Your task to perform on an android device: turn off location history Image 0: 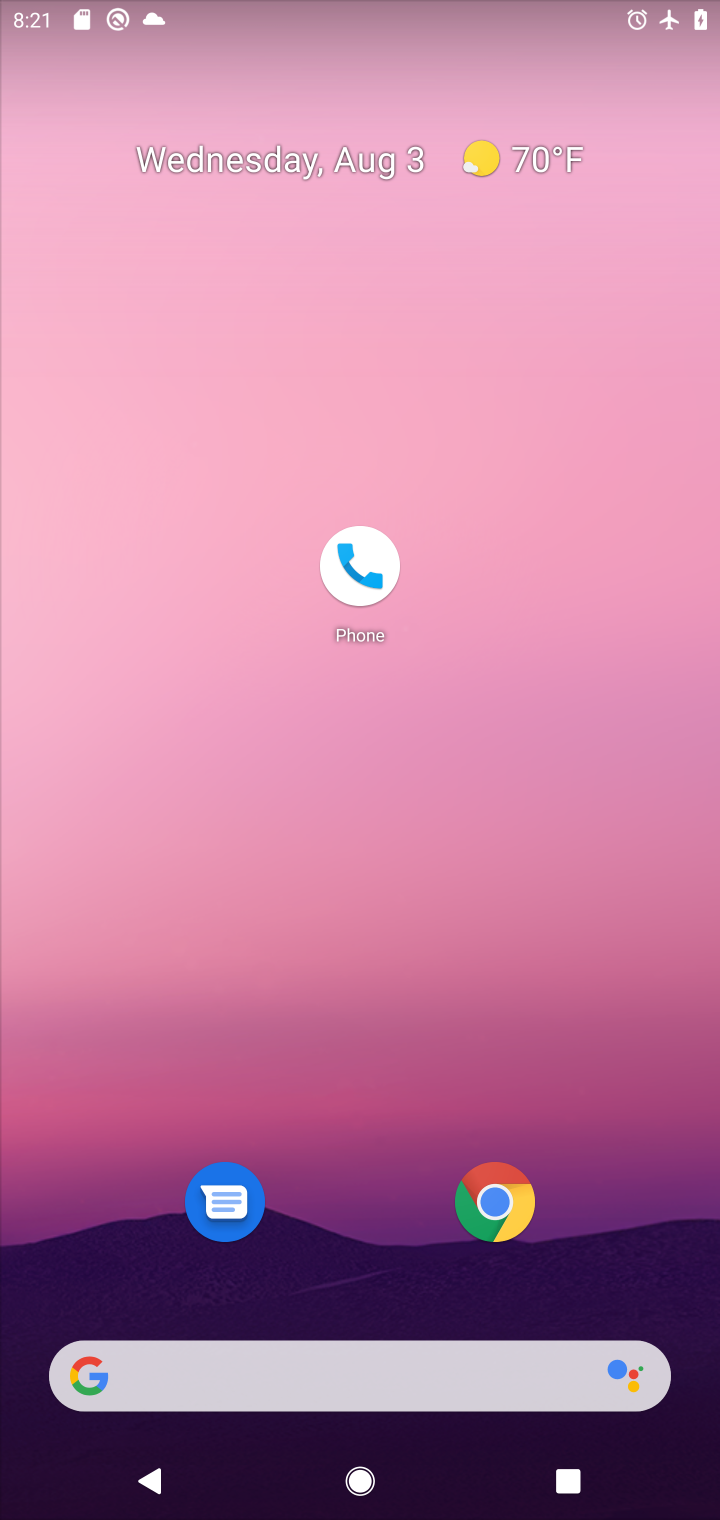
Step 0: drag from (329, 1308) to (476, 234)
Your task to perform on an android device: turn off location history Image 1: 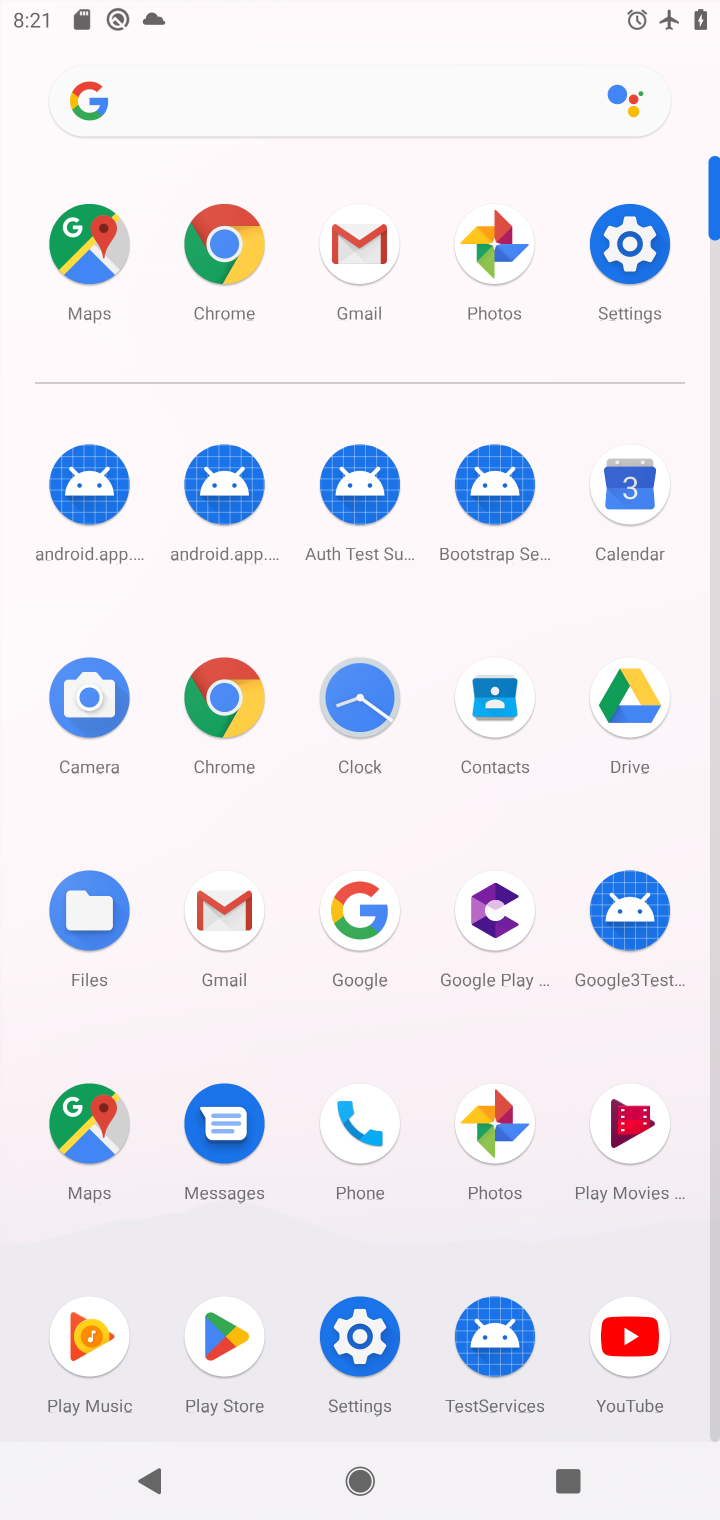
Step 1: click (628, 245)
Your task to perform on an android device: turn off location history Image 2: 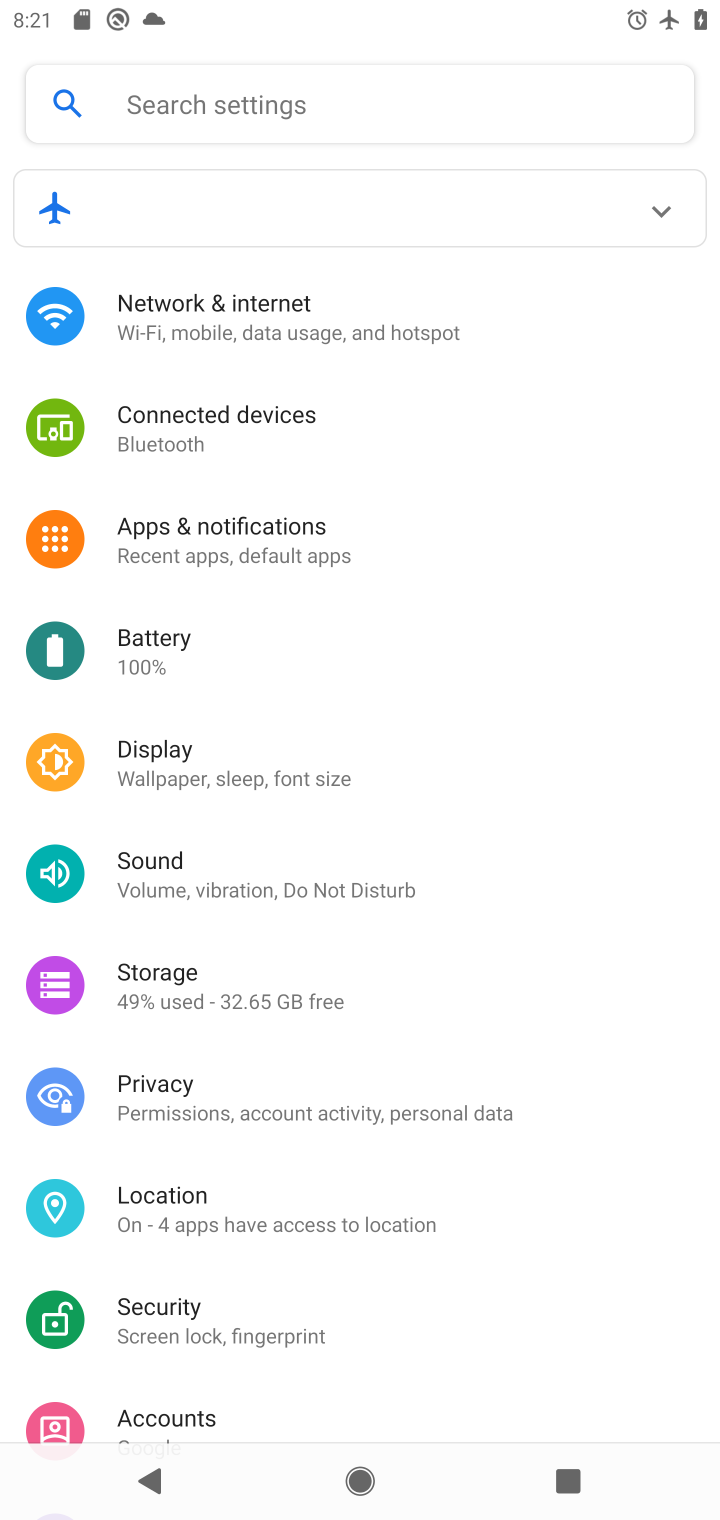
Step 2: click (218, 1219)
Your task to perform on an android device: turn off location history Image 3: 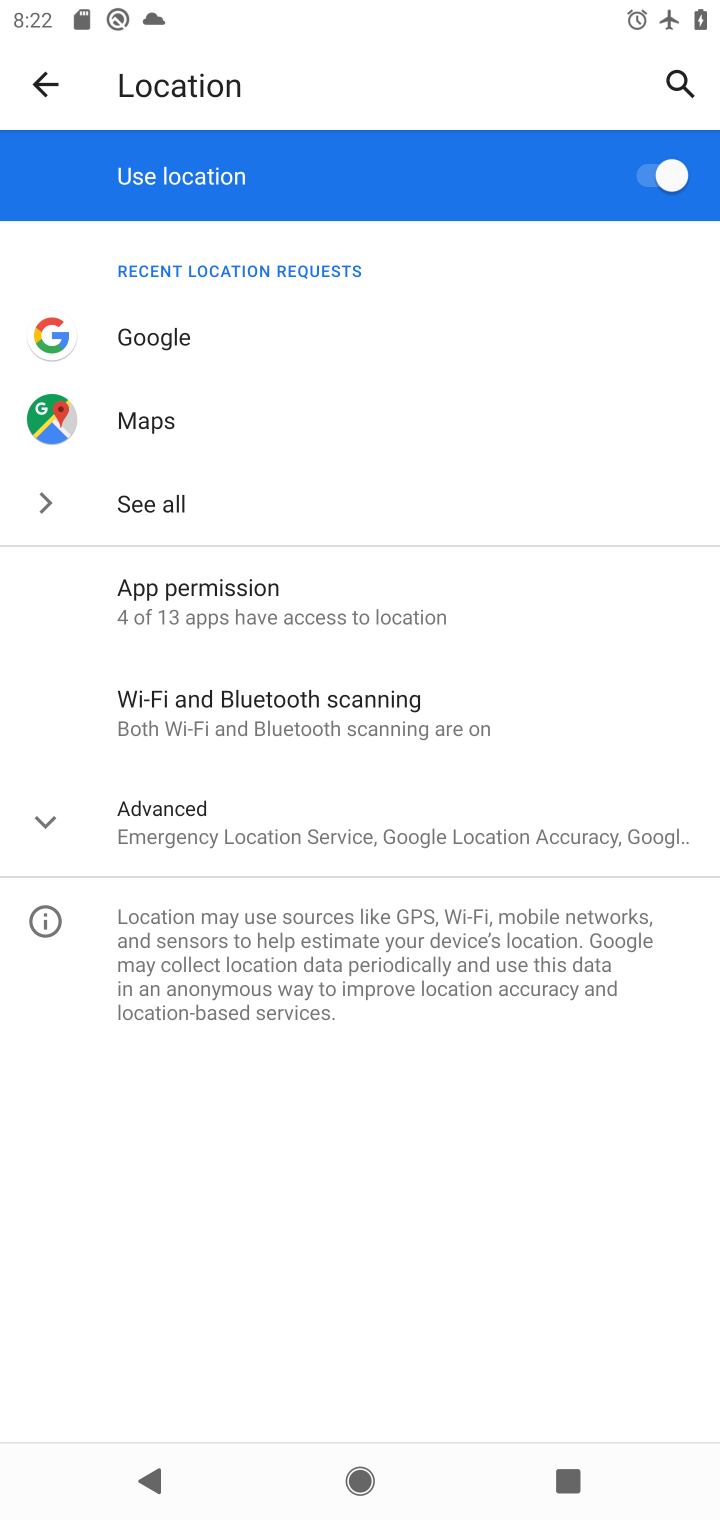
Step 3: click (282, 834)
Your task to perform on an android device: turn off location history Image 4: 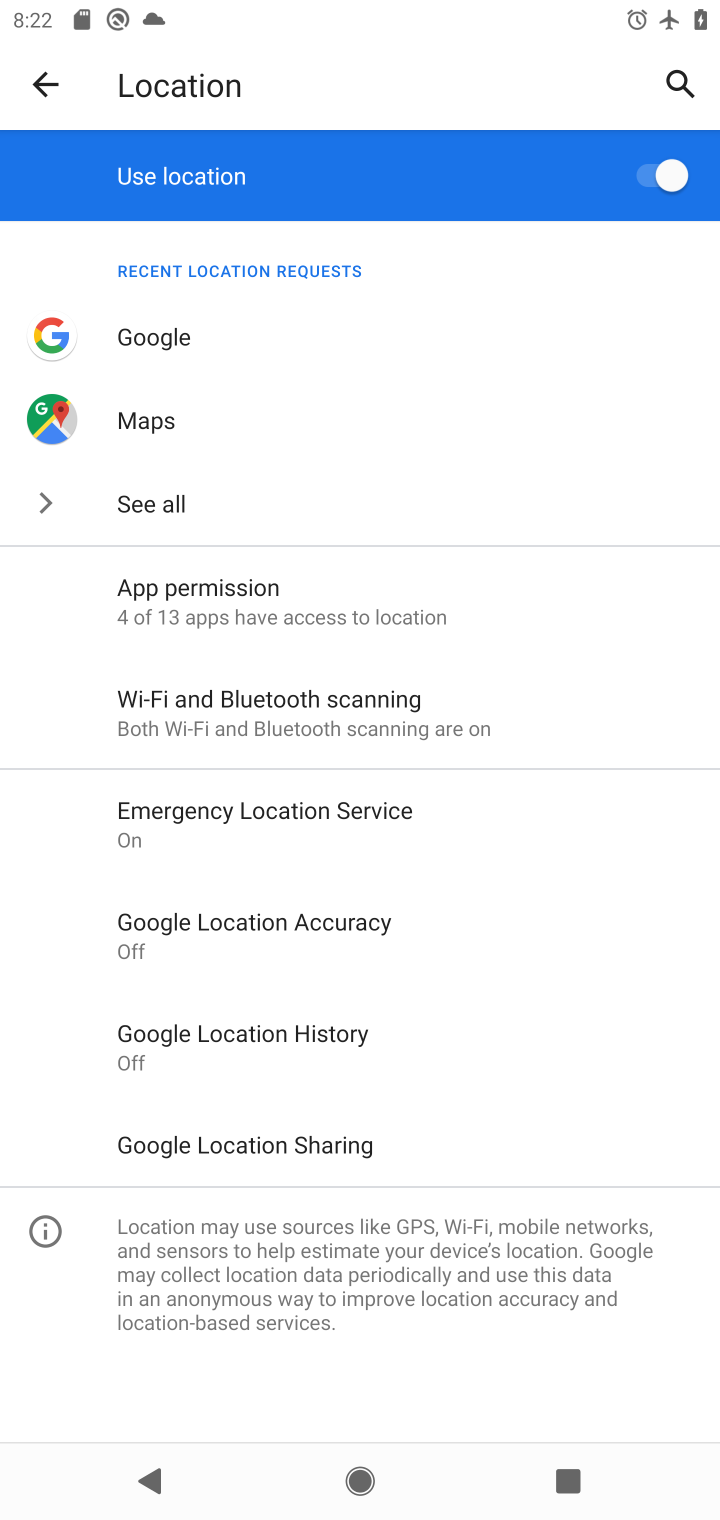
Step 4: task complete